Your task to perform on an android device: Open calendar and show me the fourth week of next month Image 0: 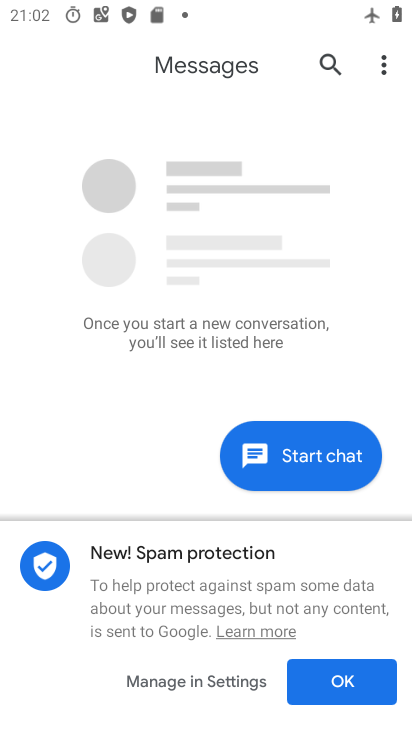
Step 0: press back button
Your task to perform on an android device: Open calendar and show me the fourth week of next month Image 1: 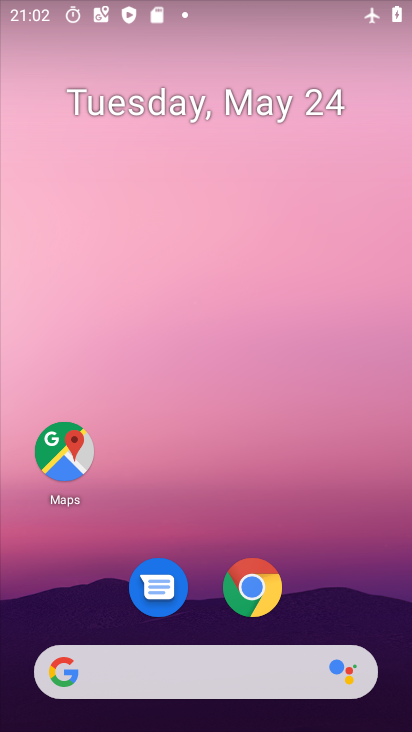
Step 1: drag from (338, 581) to (237, 35)
Your task to perform on an android device: Open calendar and show me the fourth week of next month Image 2: 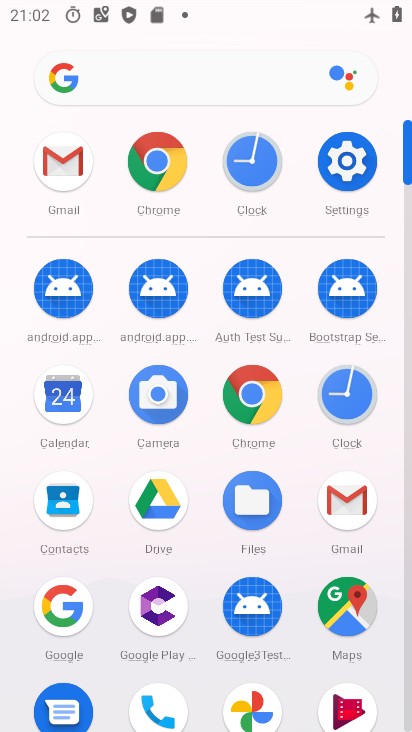
Step 2: drag from (16, 602) to (21, 256)
Your task to perform on an android device: Open calendar and show me the fourth week of next month Image 3: 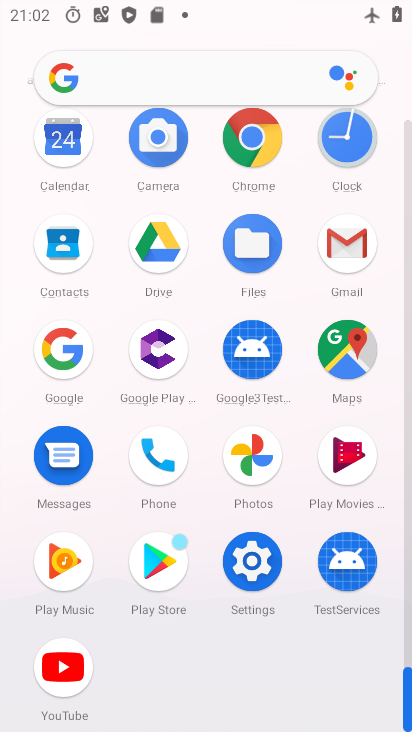
Step 3: click (57, 136)
Your task to perform on an android device: Open calendar and show me the fourth week of next month Image 4: 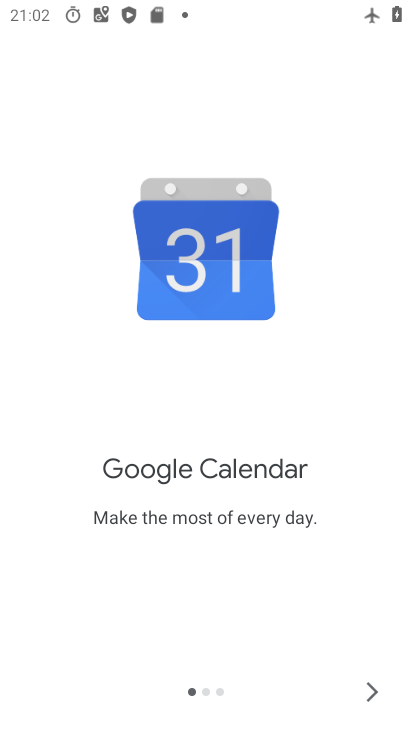
Step 4: click (361, 694)
Your task to perform on an android device: Open calendar and show me the fourth week of next month Image 5: 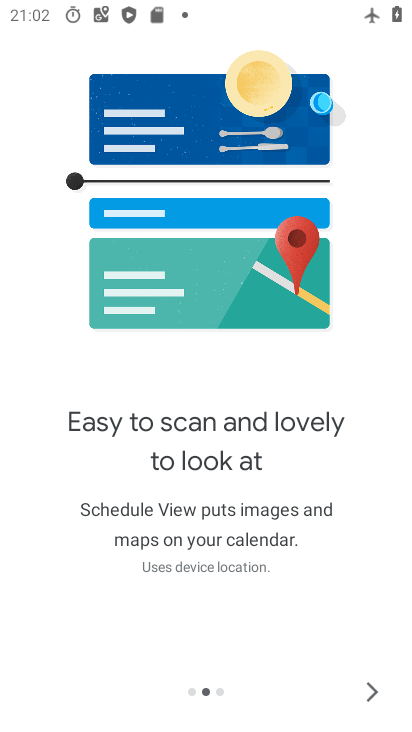
Step 5: click (391, 687)
Your task to perform on an android device: Open calendar and show me the fourth week of next month Image 6: 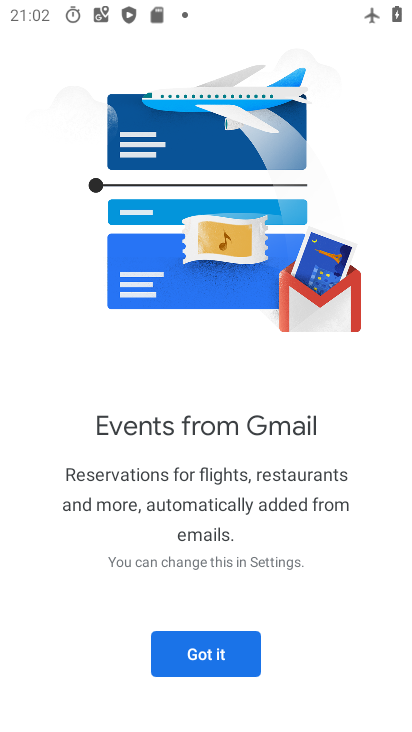
Step 6: click (228, 659)
Your task to perform on an android device: Open calendar and show me the fourth week of next month Image 7: 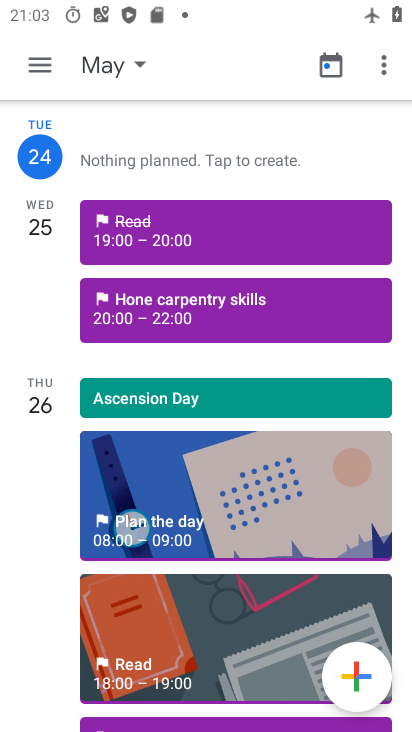
Step 7: click (117, 55)
Your task to perform on an android device: Open calendar and show me the fourth week of next month Image 8: 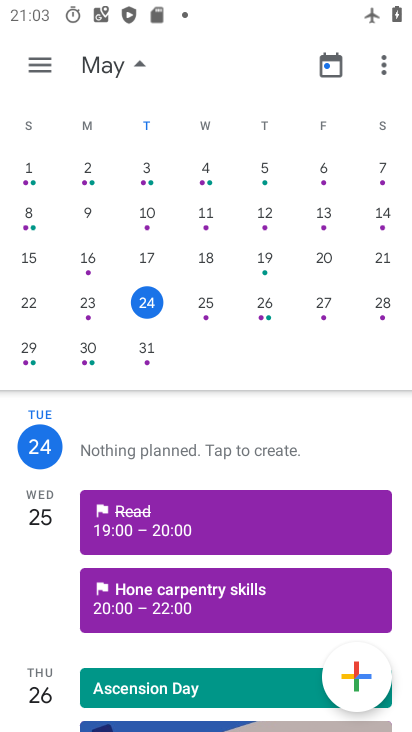
Step 8: drag from (360, 221) to (0, 185)
Your task to perform on an android device: Open calendar and show me the fourth week of next month Image 9: 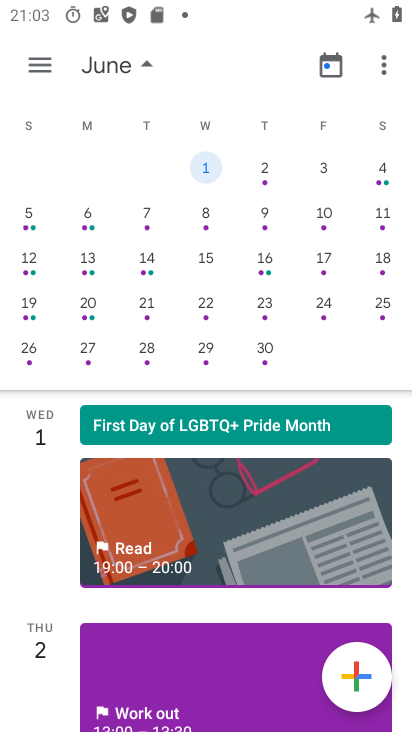
Step 9: click (27, 303)
Your task to perform on an android device: Open calendar and show me the fourth week of next month Image 10: 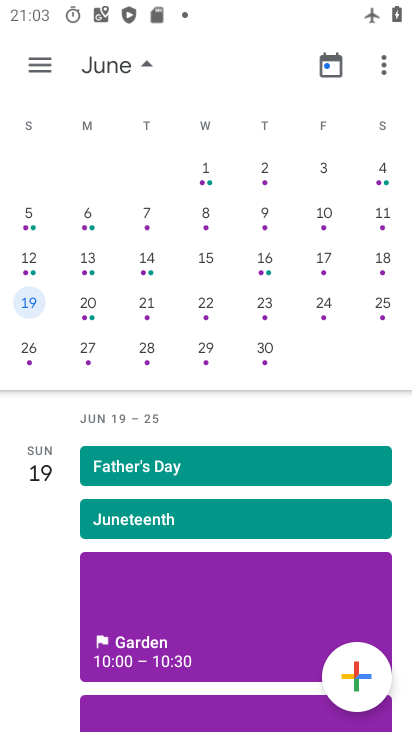
Step 10: click (49, 51)
Your task to perform on an android device: Open calendar and show me the fourth week of next month Image 11: 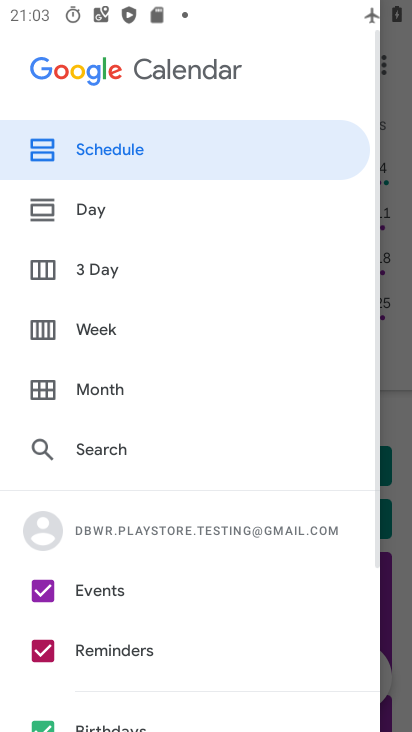
Step 11: click (113, 333)
Your task to perform on an android device: Open calendar and show me the fourth week of next month Image 12: 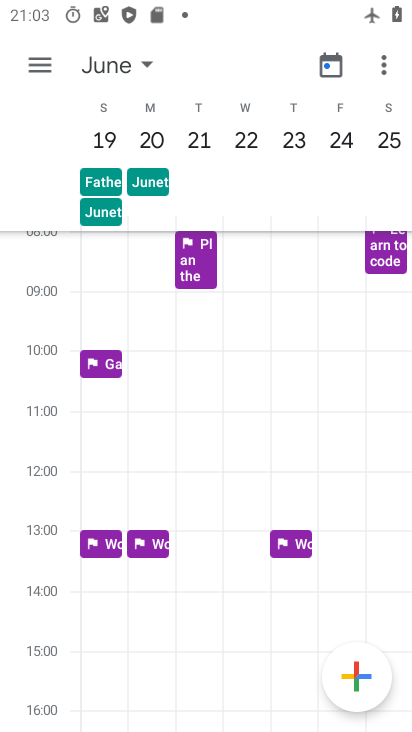
Step 12: task complete